Your task to perform on an android device: turn on notifications settings in the gmail app Image 0: 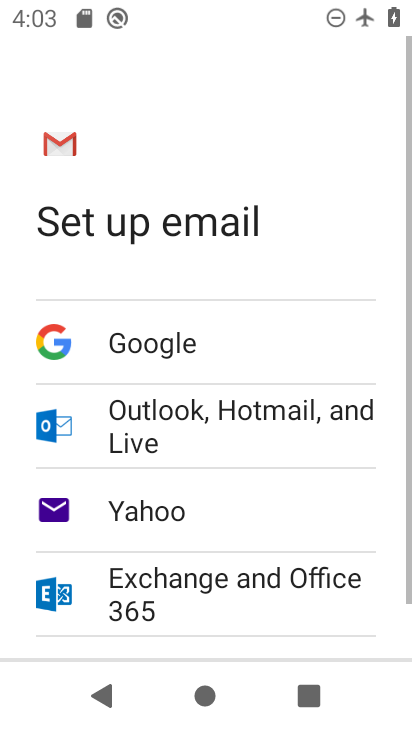
Step 0: press back button
Your task to perform on an android device: turn on notifications settings in the gmail app Image 1: 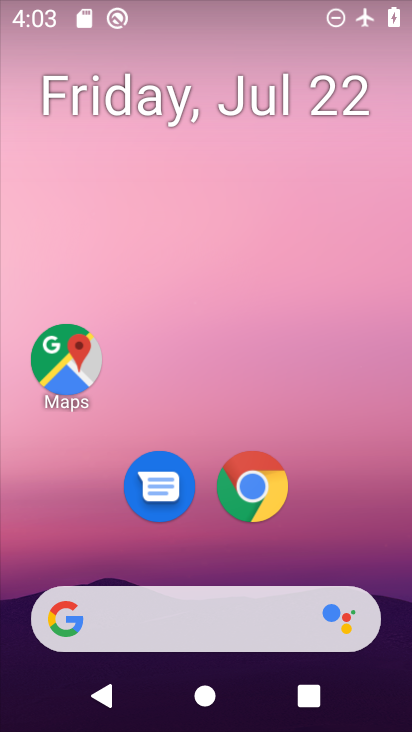
Step 1: drag from (188, 546) to (283, 7)
Your task to perform on an android device: turn on notifications settings in the gmail app Image 2: 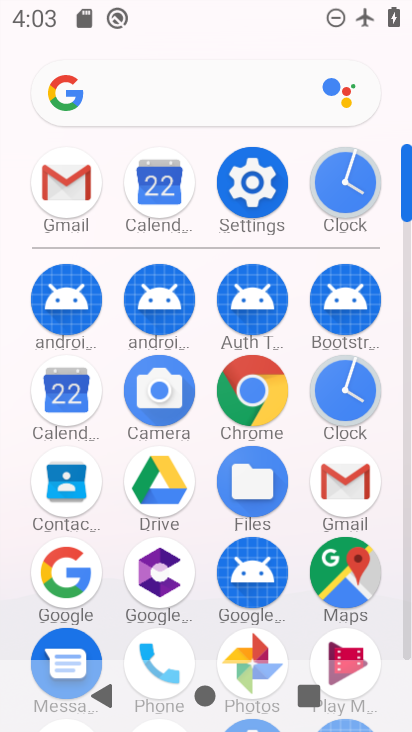
Step 2: click (63, 201)
Your task to perform on an android device: turn on notifications settings in the gmail app Image 3: 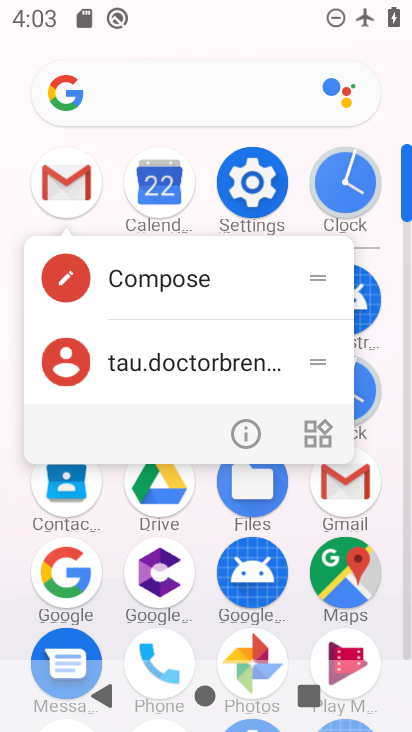
Step 3: click (239, 433)
Your task to perform on an android device: turn on notifications settings in the gmail app Image 4: 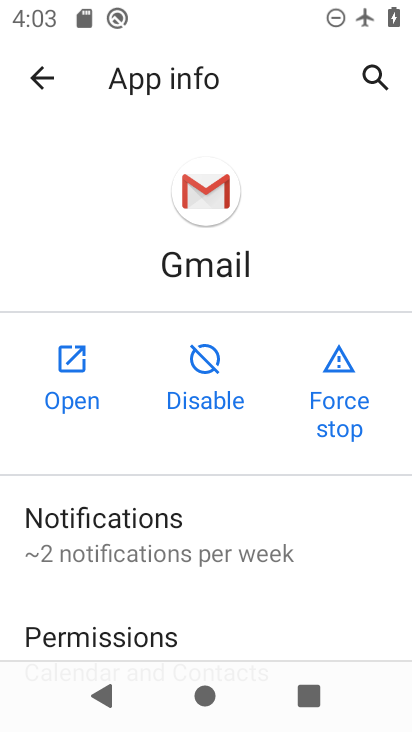
Step 4: click (143, 536)
Your task to perform on an android device: turn on notifications settings in the gmail app Image 5: 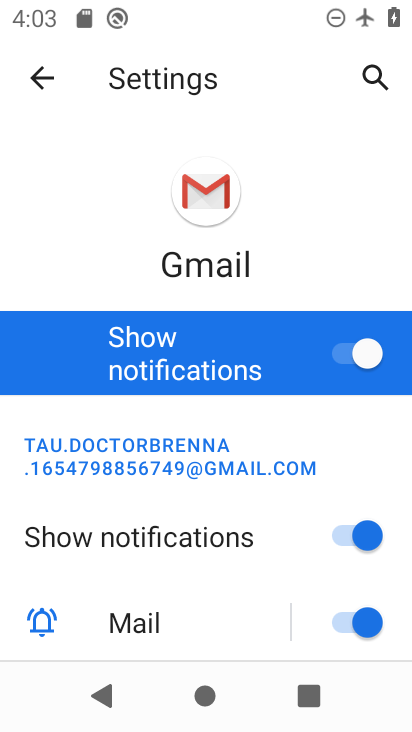
Step 5: task complete